Your task to perform on an android device: Search for seafood restaurants on Google Maps Image 0: 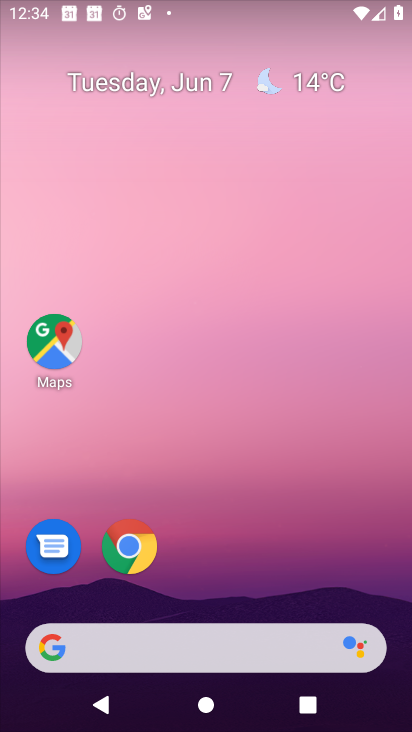
Step 0: drag from (169, 508) to (252, 115)
Your task to perform on an android device: Search for seafood restaurants on Google Maps Image 1: 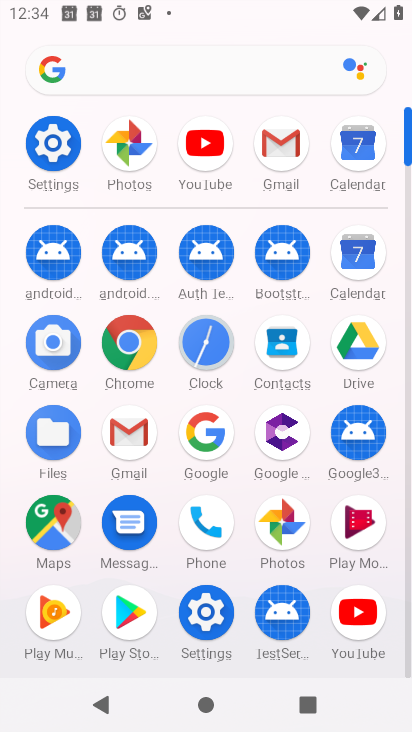
Step 1: click (37, 519)
Your task to perform on an android device: Search for seafood restaurants on Google Maps Image 2: 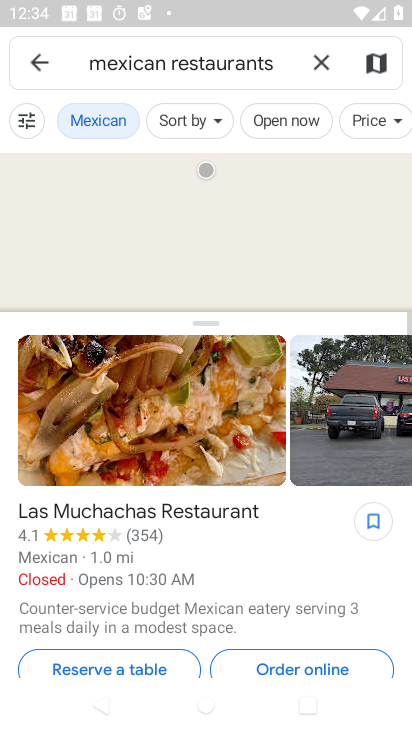
Step 2: click (119, 56)
Your task to perform on an android device: Search for seafood restaurants on Google Maps Image 3: 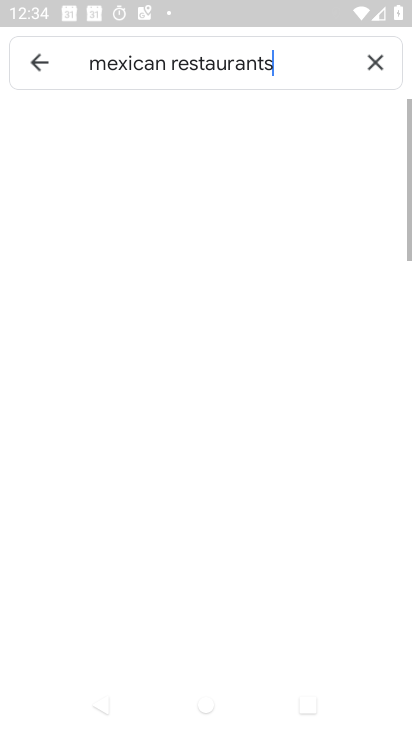
Step 3: click (126, 65)
Your task to perform on an android device: Search for seafood restaurants on Google Maps Image 4: 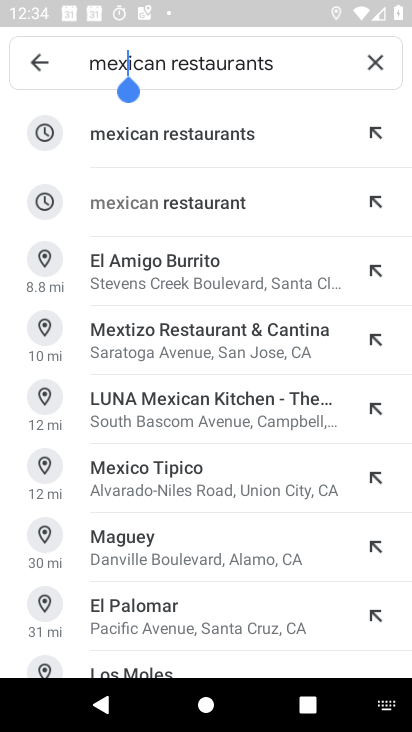
Step 4: click (126, 65)
Your task to perform on an android device: Search for seafood restaurants on Google Maps Image 5: 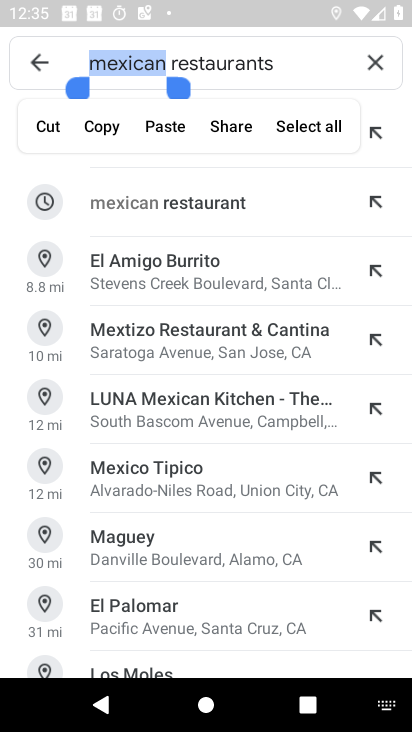
Step 5: type "seafood"
Your task to perform on an android device: Search for seafood restaurants on Google Maps Image 6: 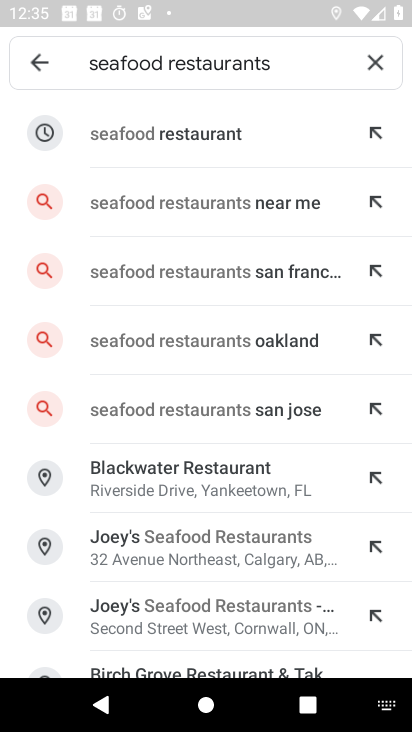
Step 6: click (233, 134)
Your task to perform on an android device: Search for seafood restaurants on Google Maps Image 7: 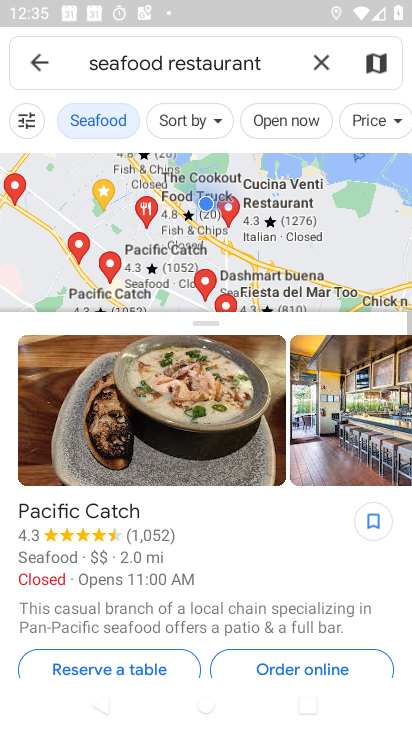
Step 7: task complete